Your task to perform on an android device: Open Amazon Image 0: 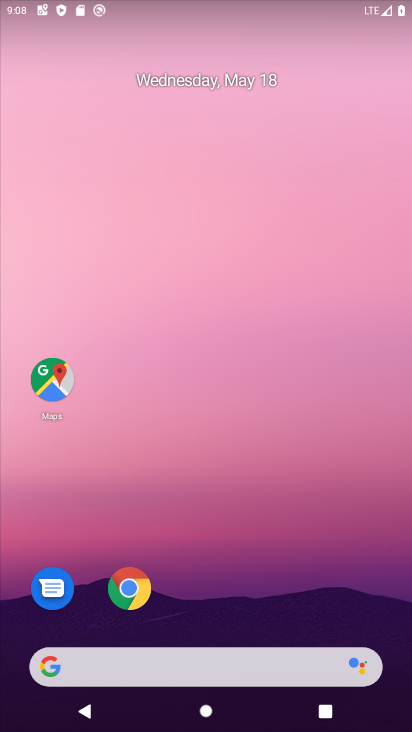
Step 0: click (133, 585)
Your task to perform on an android device: Open Amazon Image 1: 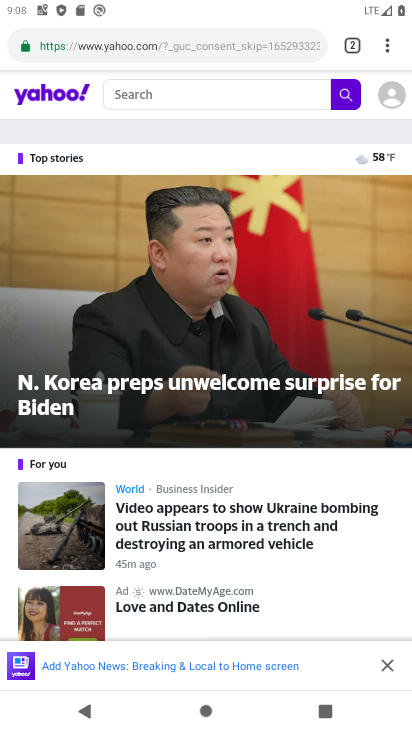
Step 1: click (145, 55)
Your task to perform on an android device: Open Amazon Image 2: 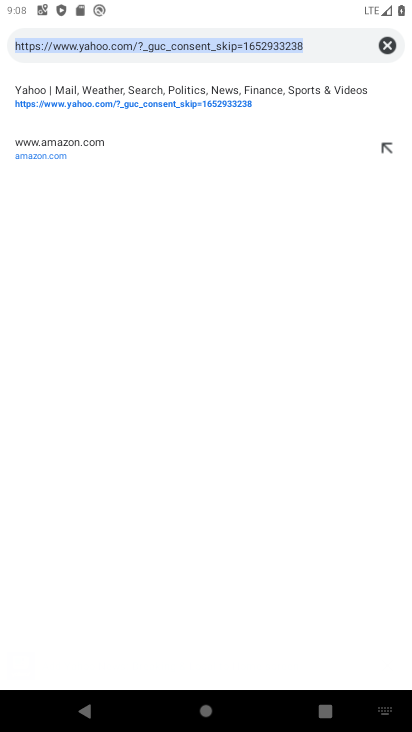
Step 2: click (72, 148)
Your task to perform on an android device: Open Amazon Image 3: 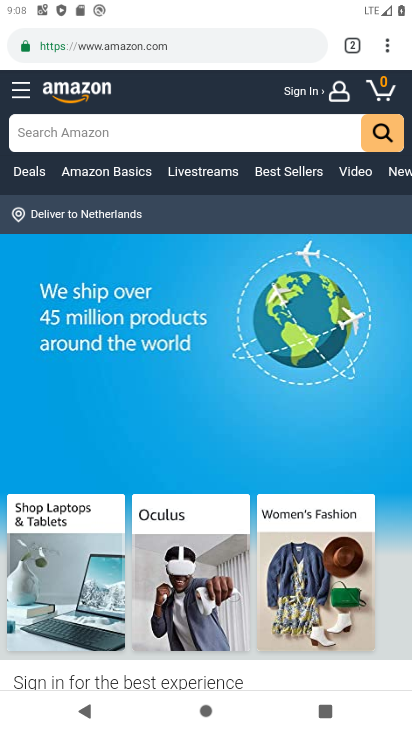
Step 3: task complete